Your task to perform on an android device: Go to Reddit.com Image 0: 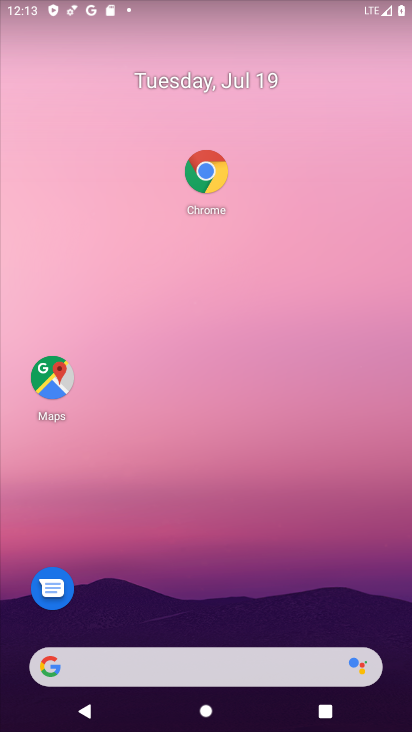
Step 0: click (130, 661)
Your task to perform on an android device: Go to Reddit.com Image 1: 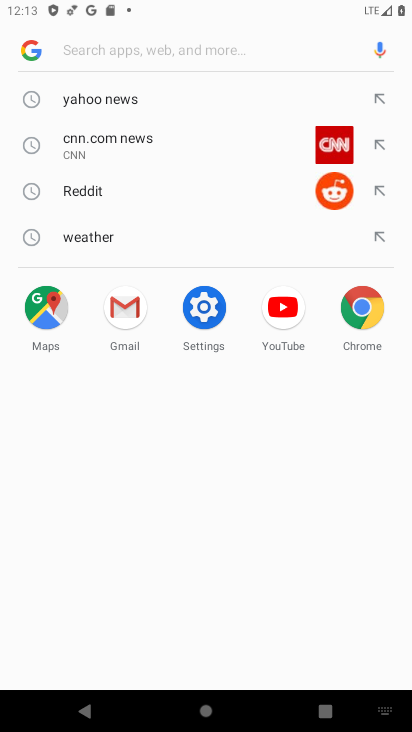
Step 1: click (94, 184)
Your task to perform on an android device: Go to Reddit.com Image 2: 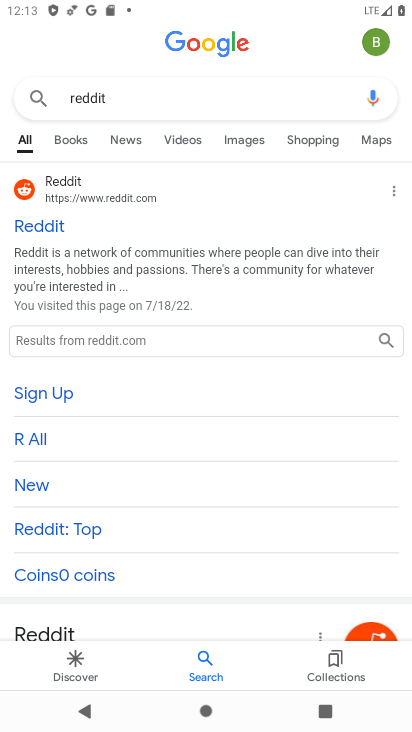
Step 2: click (33, 222)
Your task to perform on an android device: Go to Reddit.com Image 3: 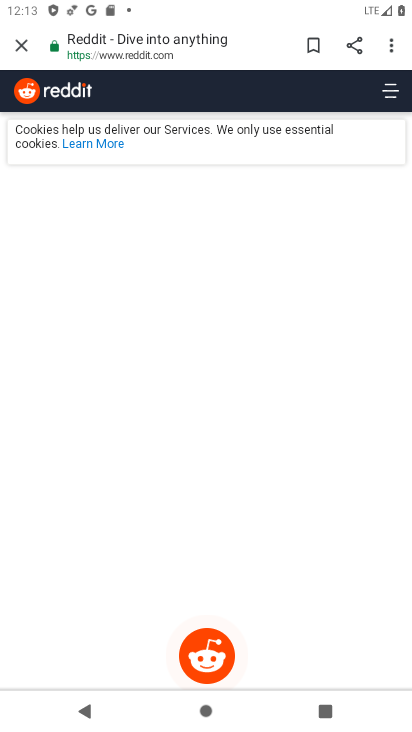
Step 3: task complete